Your task to perform on an android device: Open Google Chrome and click the shortcut for Amazon.com Image 0: 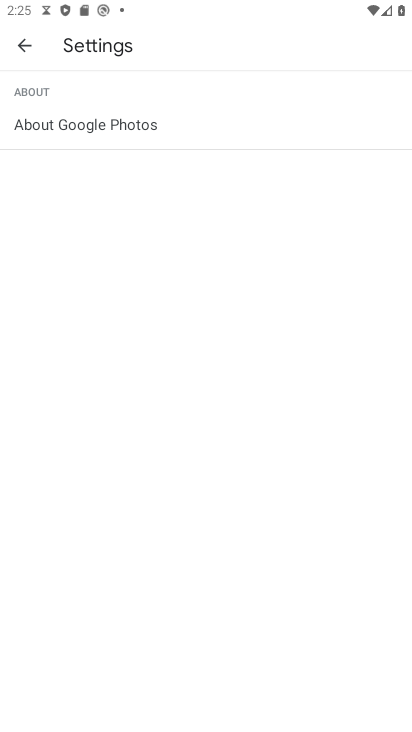
Step 0: press home button
Your task to perform on an android device: Open Google Chrome and click the shortcut for Amazon.com Image 1: 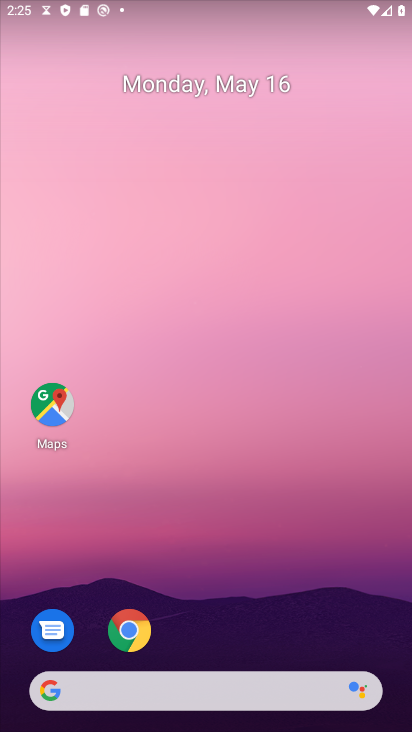
Step 1: click (133, 619)
Your task to perform on an android device: Open Google Chrome and click the shortcut for Amazon.com Image 2: 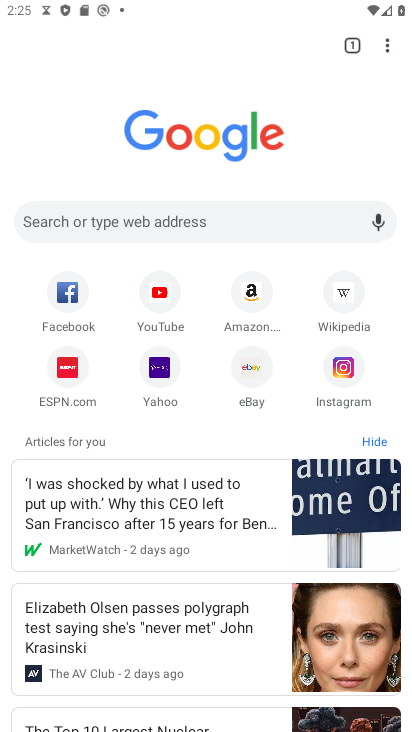
Step 2: click (250, 279)
Your task to perform on an android device: Open Google Chrome and click the shortcut for Amazon.com Image 3: 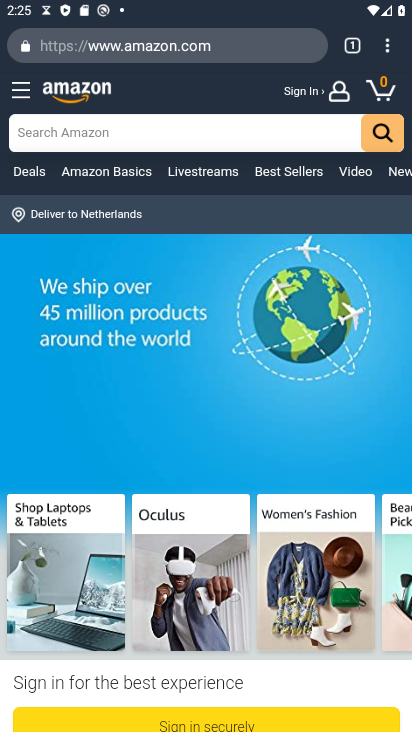
Step 3: task complete